Your task to perform on an android device: Go to battery settings Image 0: 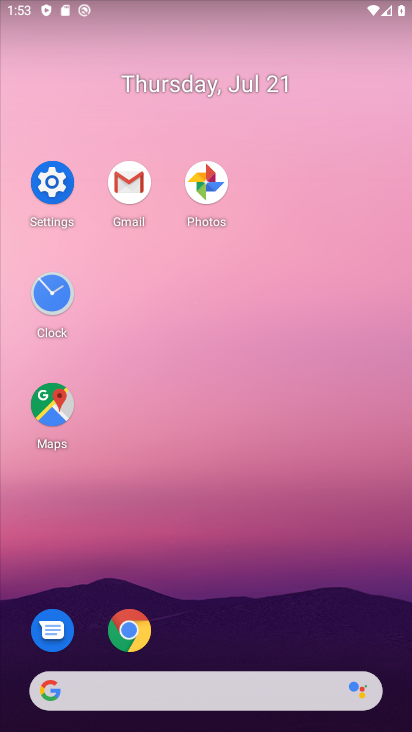
Step 0: click (49, 183)
Your task to perform on an android device: Go to battery settings Image 1: 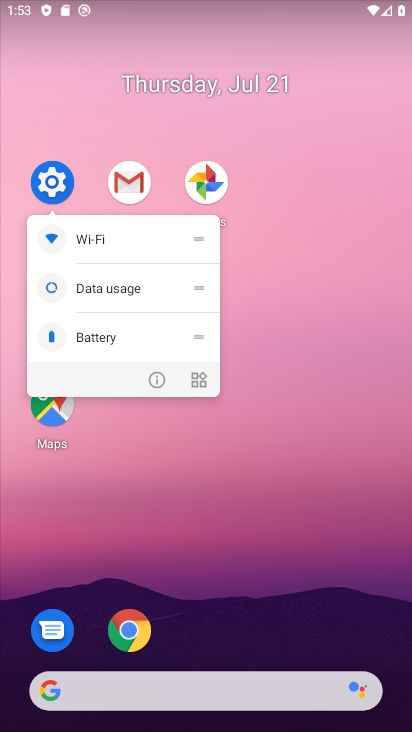
Step 1: click (58, 179)
Your task to perform on an android device: Go to battery settings Image 2: 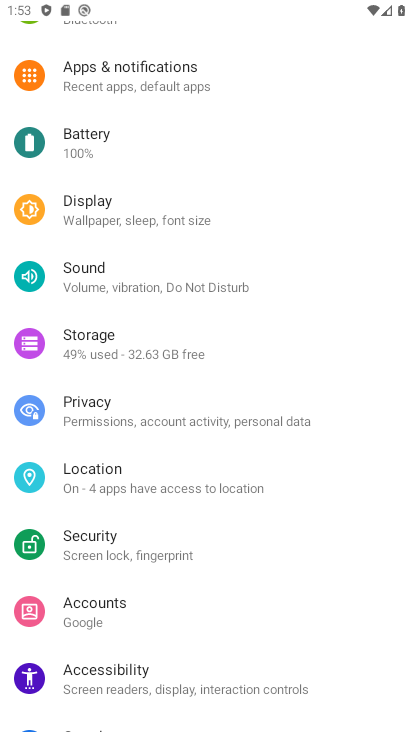
Step 2: click (184, 158)
Your task to perform on an android device: Go to battery settings Image 3: 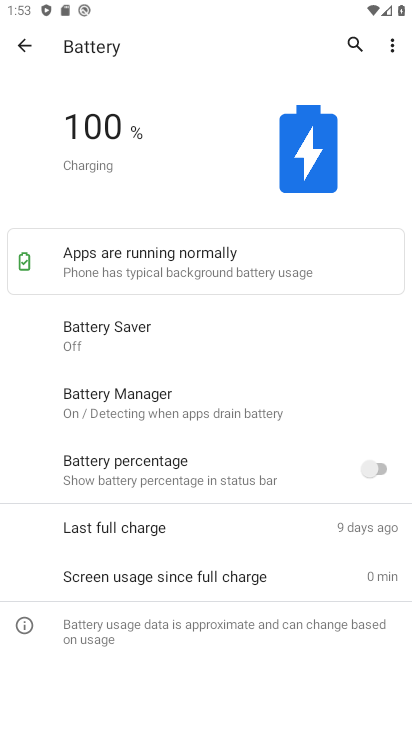
Step 3: task complete